Your task to perform on an android device: Search for a new blush Image 0: 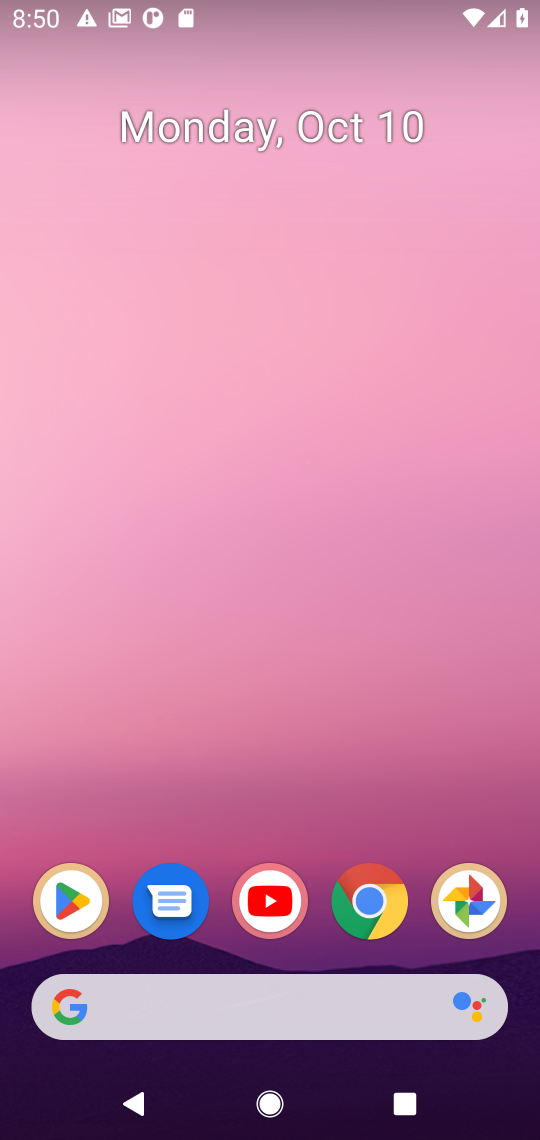
Step 0: click (239, 997)
Your task to perform on an android device: Search for a new blush Image 1: 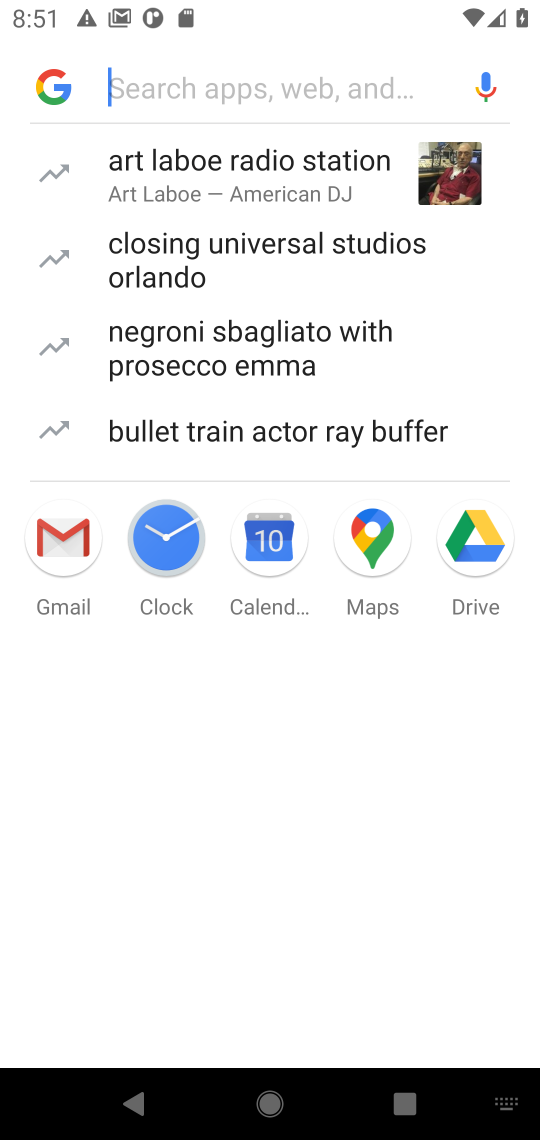
Step 1: type "new blush"
Your task to perform on an android device: Search for a new blush Image 2: 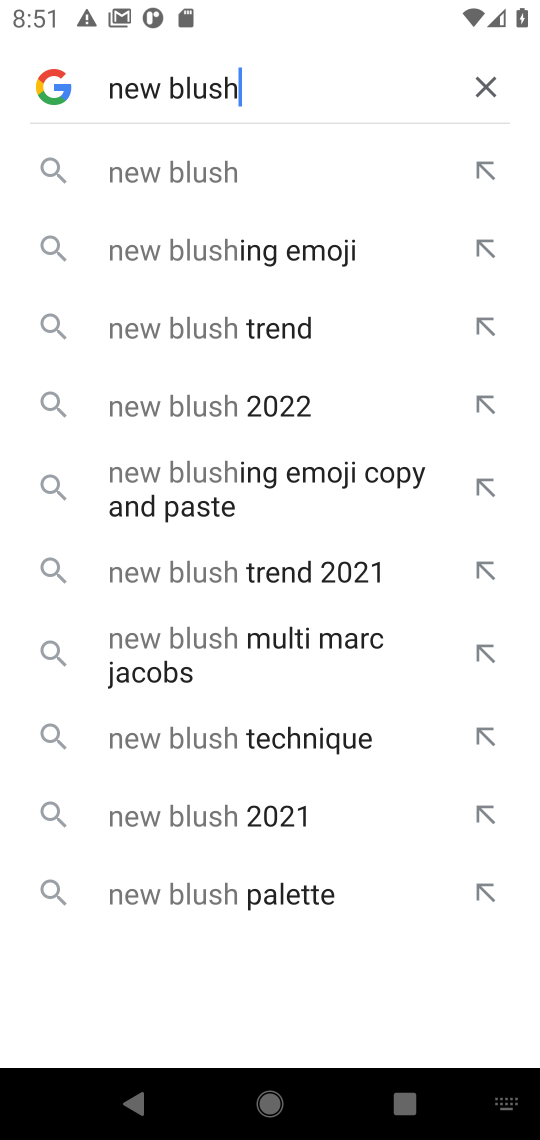
Step 2: press enter
Your task to perform on an android device: Search for a new blush Image 3: 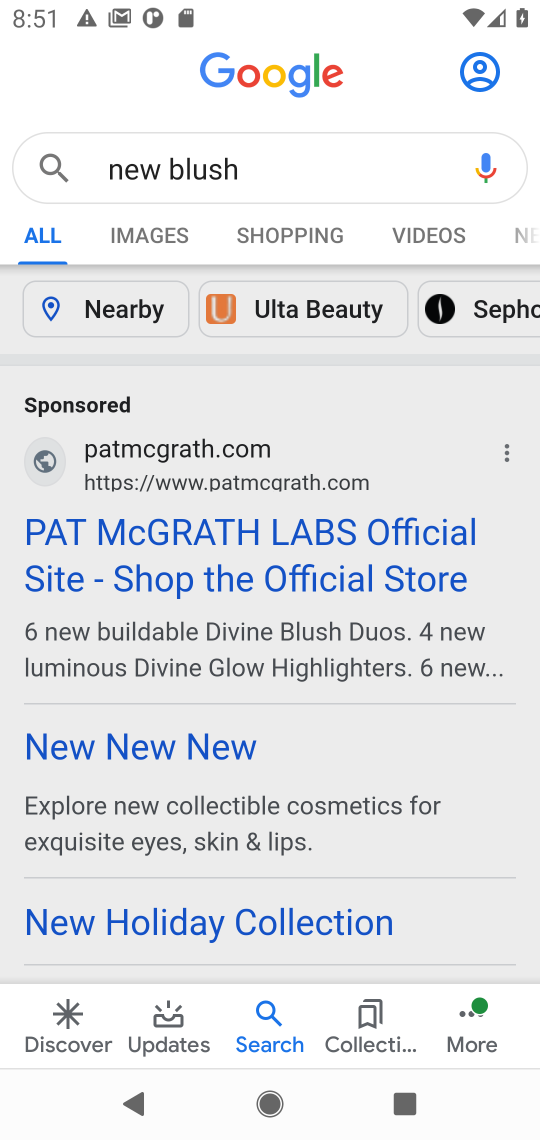
Step 3: task complete